Your task to perform on an android device: change the clock display to show seconds Image 0: 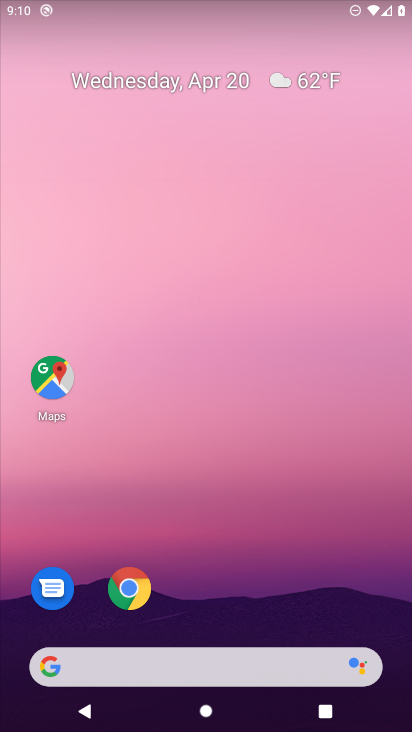
Step 0: drag from (226, 625) to (276, 33)
Your task to perform on an android device: change the clock display to show seconds Image 1: 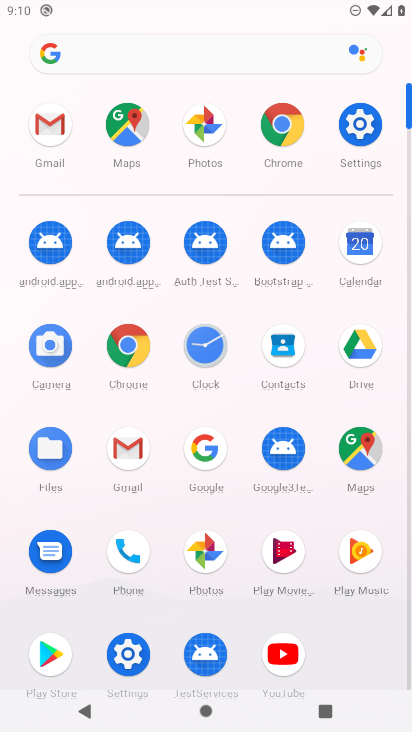
Step 1: click (200, 340)
Your task to perform on an android device: change the clock display to show seconds Image 2: 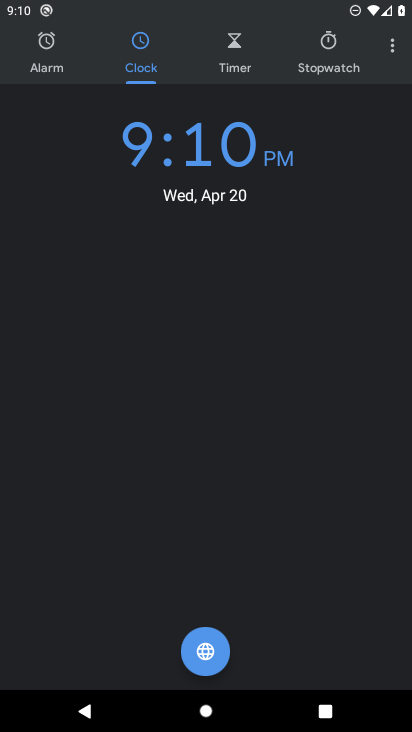
Step 2: click (392, 46)
Your task to perform on an android device: change the clock display to show seconds Image 3: 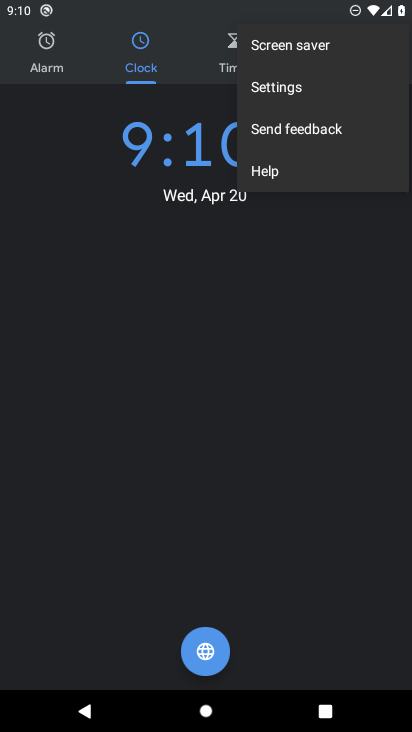
Step 3: click (306, 86)
Your task to perform on an android device: change the clock display to show seconds Image 4: 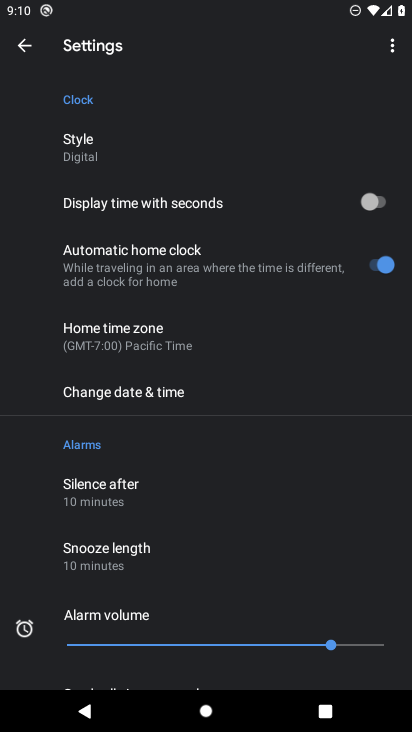
Step 4: click (378, 198)
Your task to perform on an android device: change the clock display to show seconds Image 5: 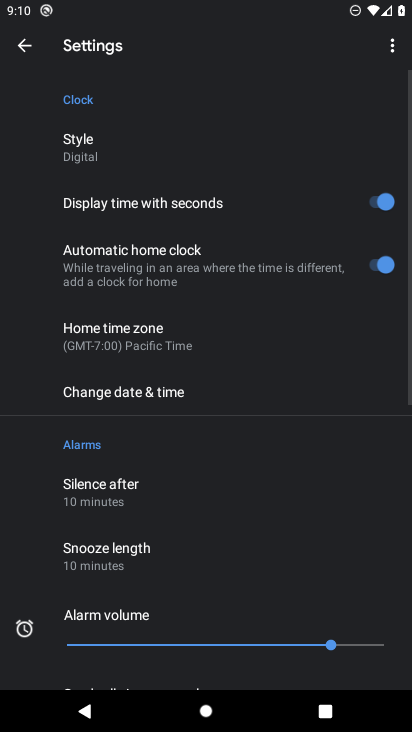
Step 5: task complete